Your task to perform on an android device: find which apps use the phone's location Image 0: 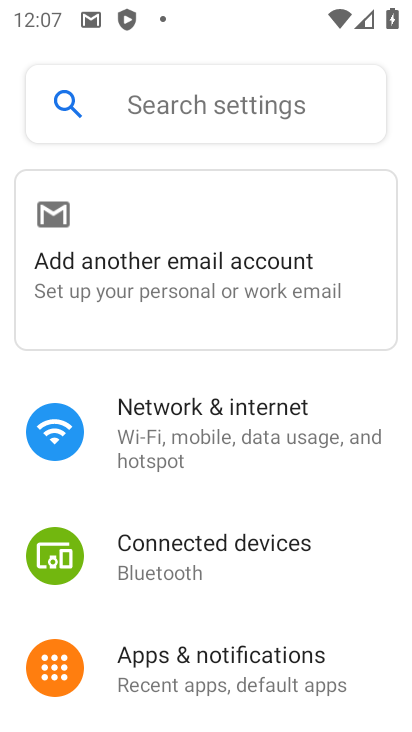
Step 0: drag from (255, 592) to (405, 239)
Your task to perform on an android device: find which apps use the phone's location Image 1: 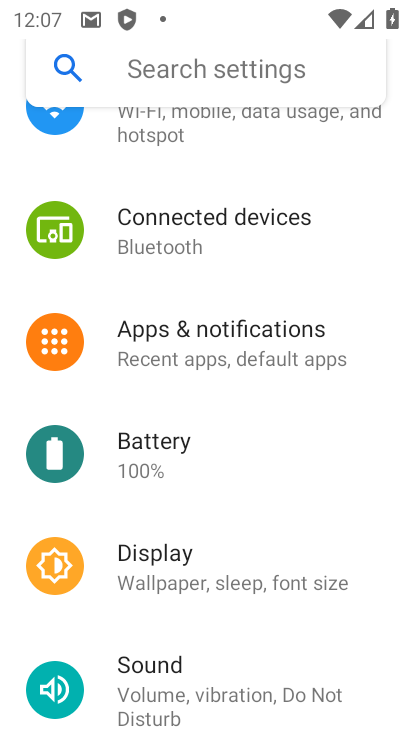
Step 1: drag from (180, 656) to (270, 196)
Your task to perform on an android device: find which apps use the phone's location Image 2: 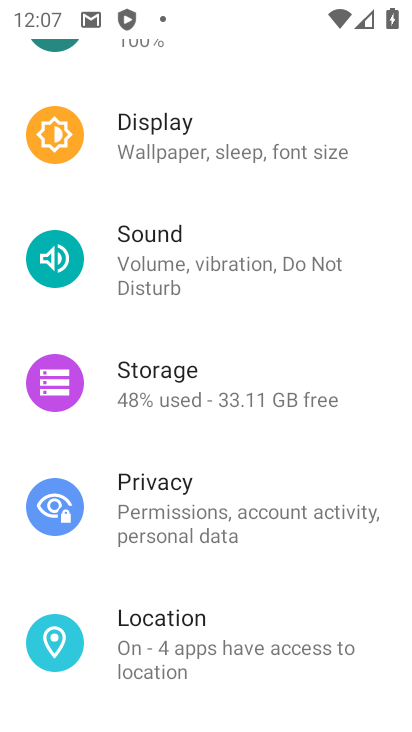
Step 2: click (161, 615)
Your task to perform on an android device: find which apps use the phone's location Image 3: 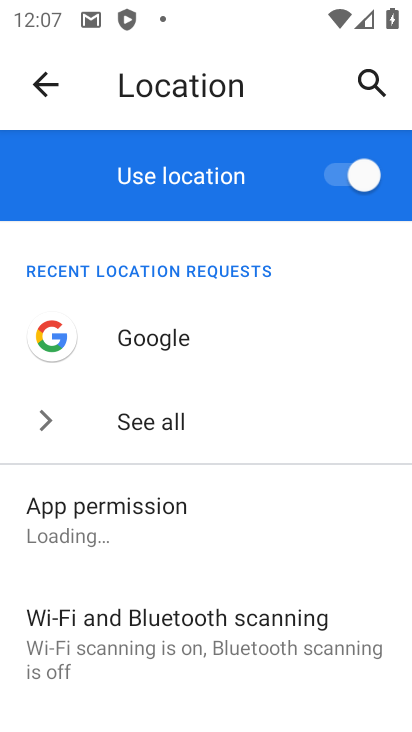
Step 3: task complete